Your task to perform on an android device: Go to location settings Image 0: 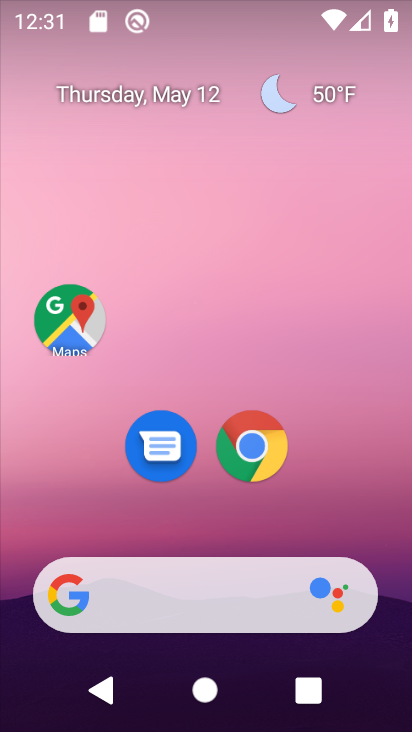
Step 0: drag from (312, 475) to (278, 22)
Your task to perform on an android device: Go to location settings Image 1: 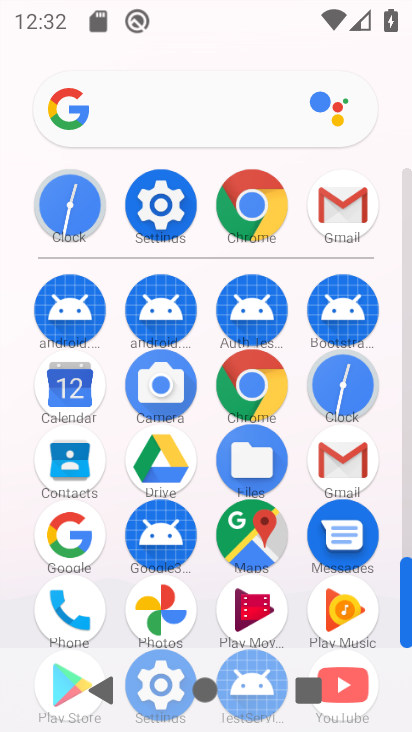
Step 1: click (164, 213)
Your task to perform on an android device: Go to location settings Image 2: 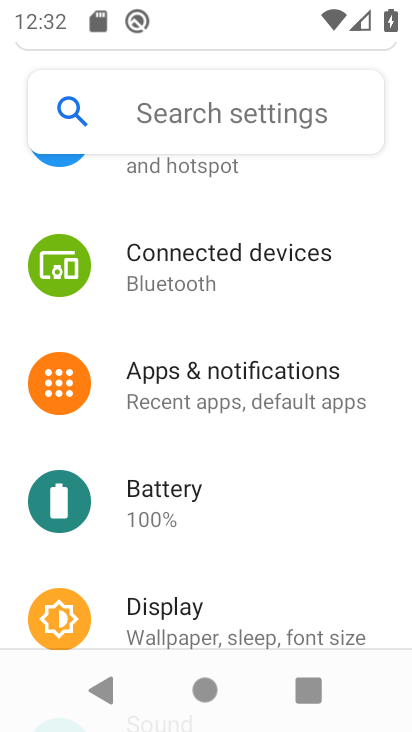
Step 2: drag from (187, 584) to (196, 161)
Your task to perform on an android device: Go to location settings Image 3: 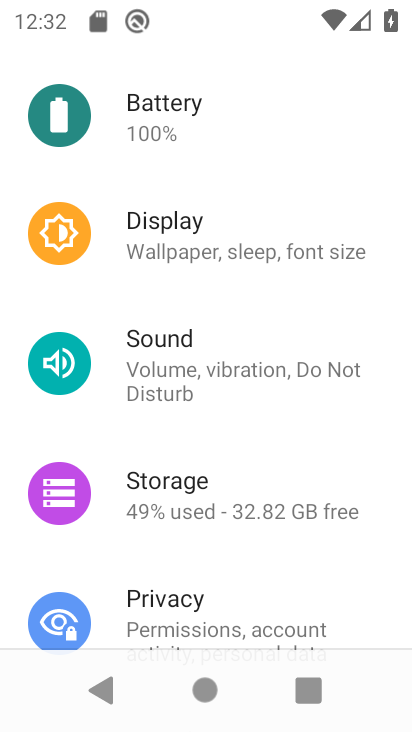
Step 3: drag from (298, 518) to (292, 173)
Your task to perform on an android device: Go to location settings Image 4: 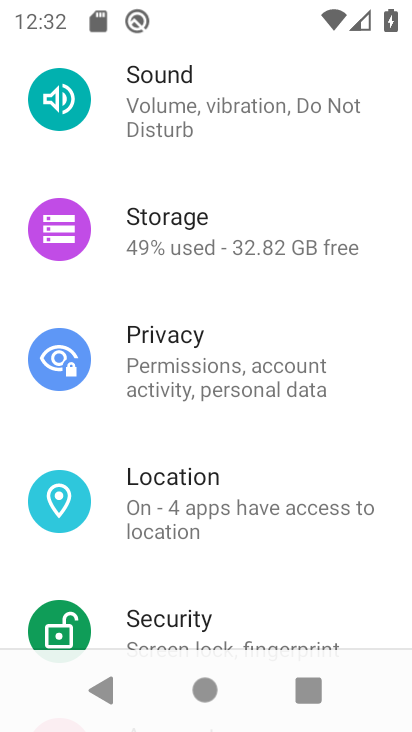
Step 4: click (235, 487)
Your task to perform on an android device: Go to location settings Image 5: 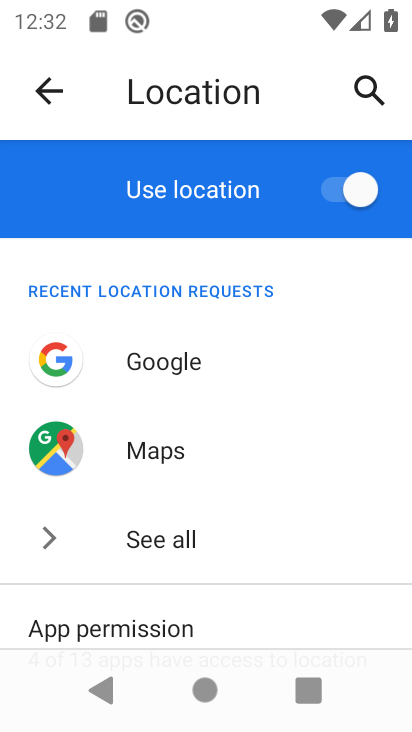
Step 5: drag from (170, 535) to (170, 163)
Your task to perform on an android device: Go to location settings Image 6: 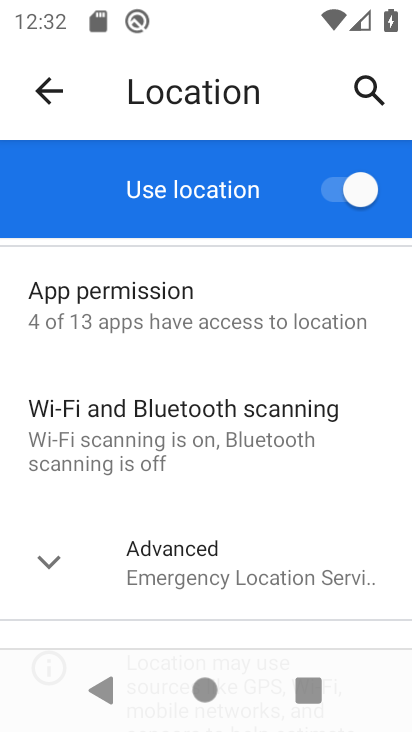
Step 6: click (155, 558)
Your task to perform on an android device: Go to location settings Image 7: 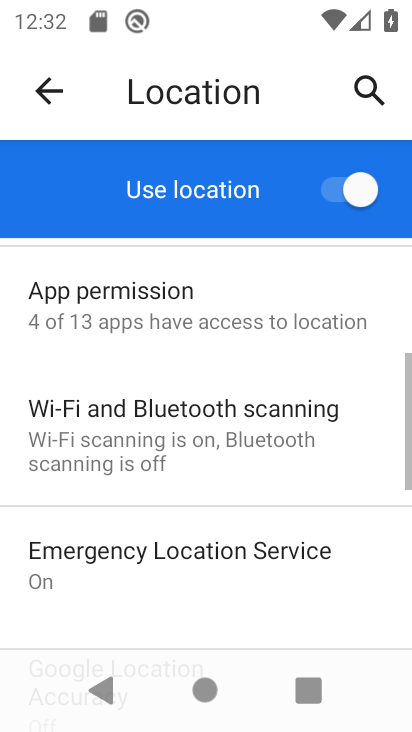
Step 7: click (157, 132)
Your task to perform on an android device: Go to location settings Image 8: 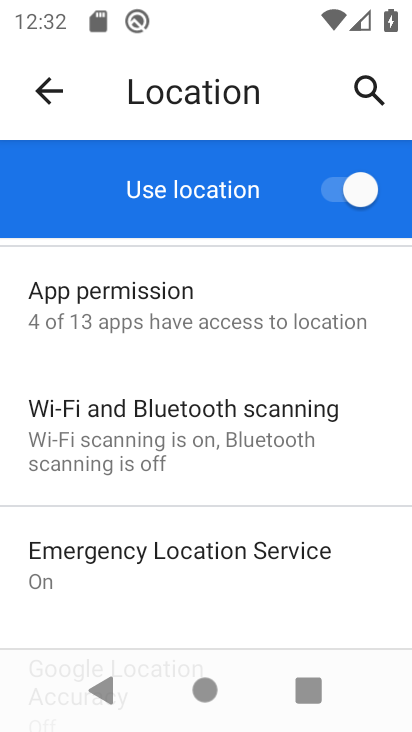
Step 8: task complete